Your task to perform on an android device: Turn off the flashlight Image 0: 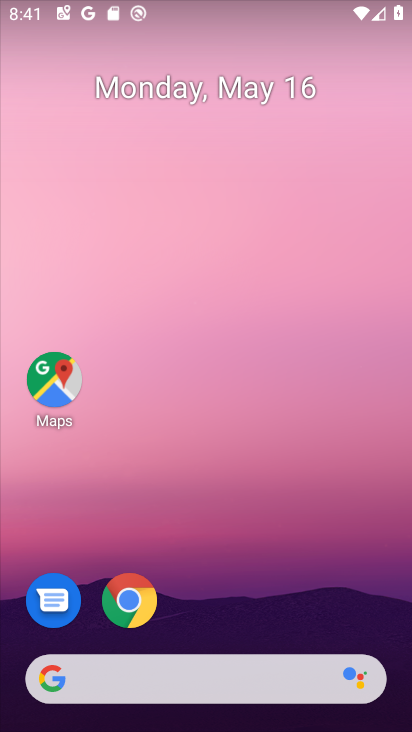
Step 0: drag from (254, 604) to (114, 130)
Your task to perform on an android device: Turn off the flashlight Image 1: 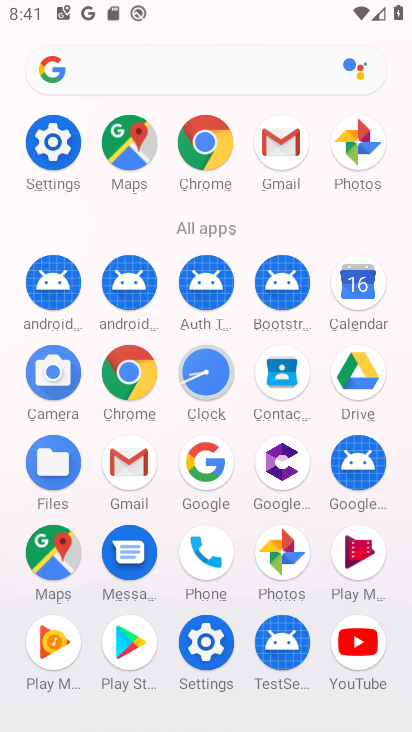
Step 1: task complete